Your task to perform on an android device: add a contact in the contacts app Image 0: 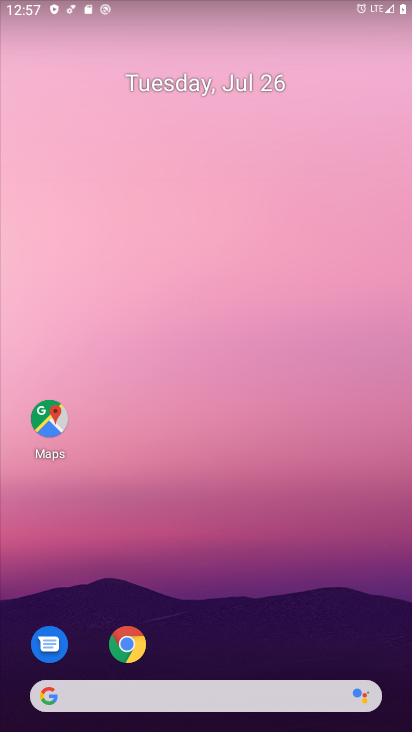
Step 0: drag from (184, 719) to (279, 40)
Your task to perform on an android device: add a contact in the contacts app Image 1: 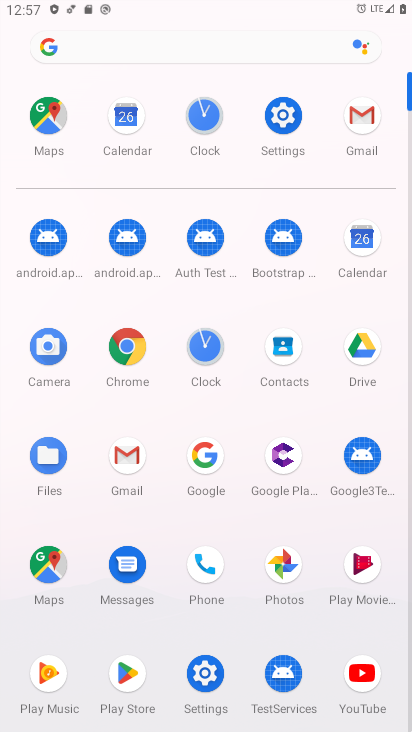
Step 1: click (270, 360)
Your task to perform on an android device: add a contact in the contacts app Image 2: 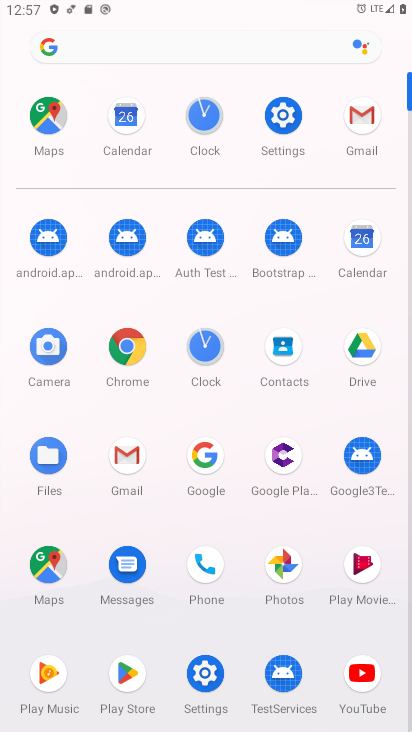
Step 2: click (270, 360)
Your task to perform on an android device: add a contact in the contacts app Image 3: 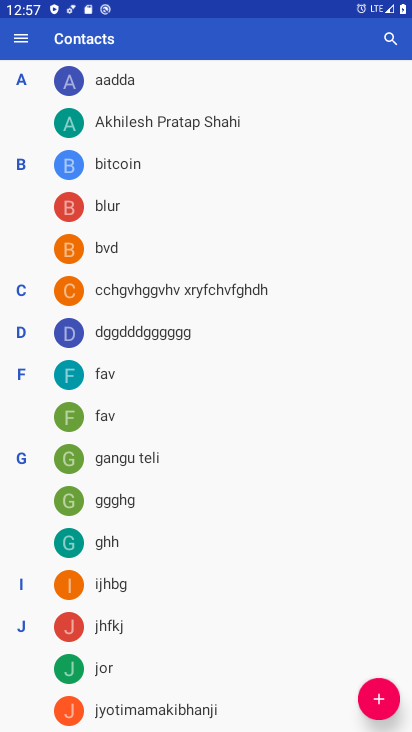
Step 3: click (383, 692)
Your task to perform on an android device: add a contact in the contacts app Image 4: 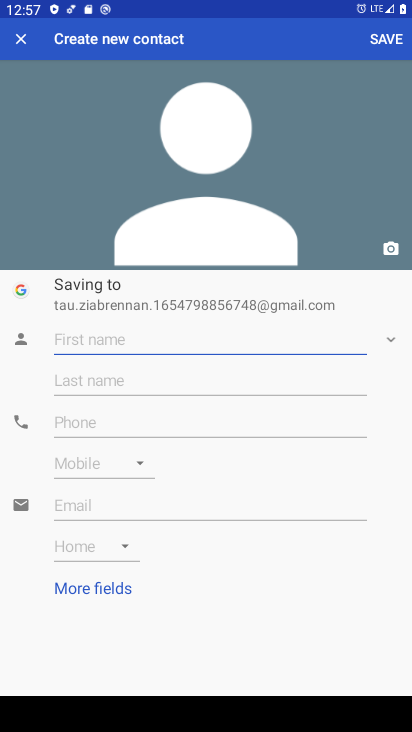
Step 4: type "gfch"
Your task to perform on an android device: add a contact in the contacts app Image 5: 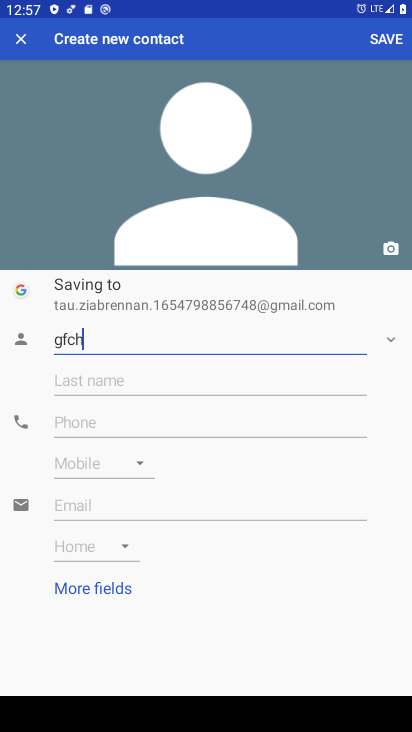
Step 5: click (170, 421)
Your task to perform on an android device: add a contact in the contacts app Image 6: 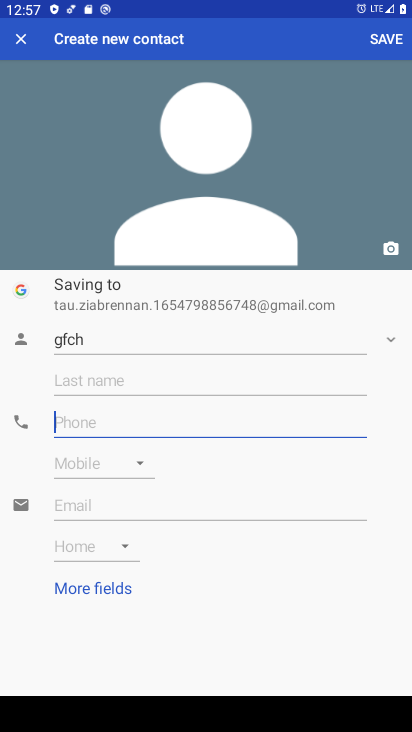
Step 6: type "67558"
Your task to perform on an android device: add a contact in the contacts app Image 7: 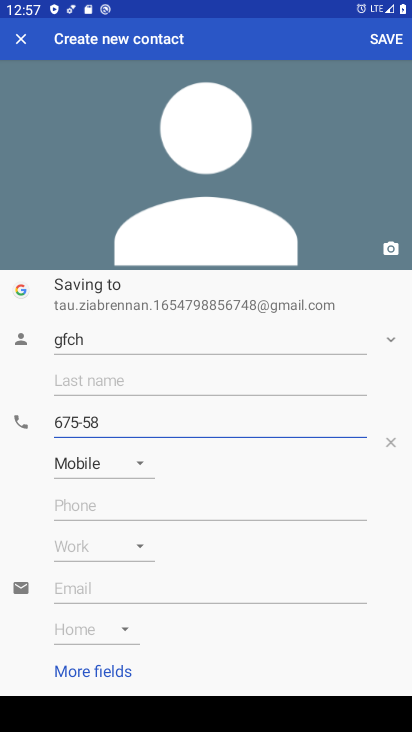
Step 7: click (382, 38)
Your task to perform on an android device: add a contact in the contacts app Image 8: 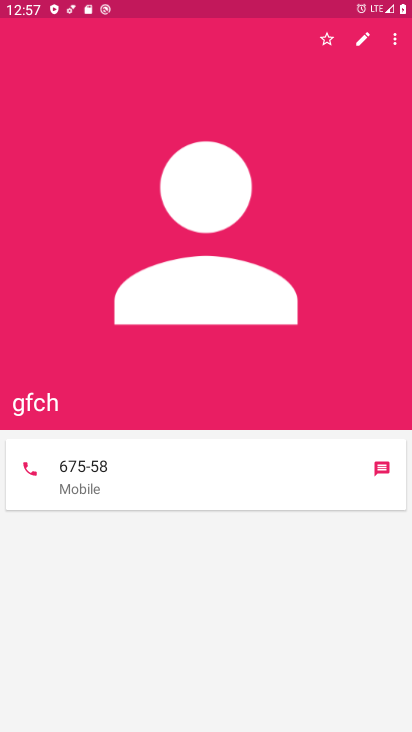
Step 8: task complete